Your task to perform on an android device: change the upload size in google photos Image 0: 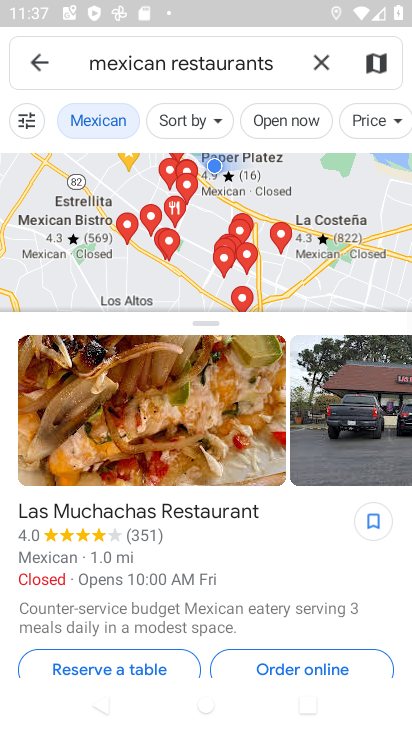
Step 0: press home button
Your task to perform on an android device: change the upload size in google photos Image 1: 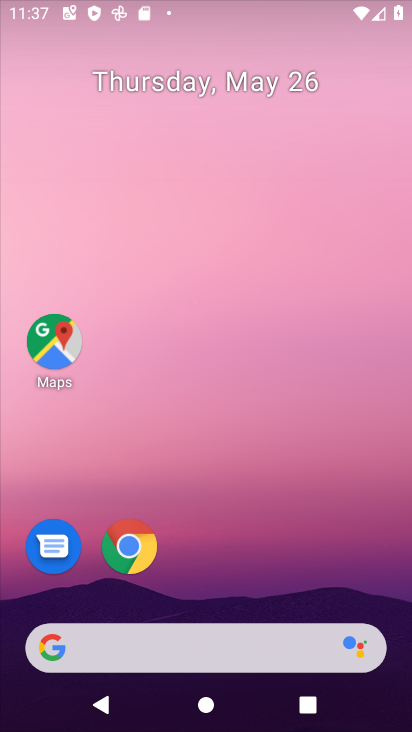
Step 1: drag from (221, 577) to (258, 118)
Your task to perform on an android device: change the upload size in google photos Image 2: 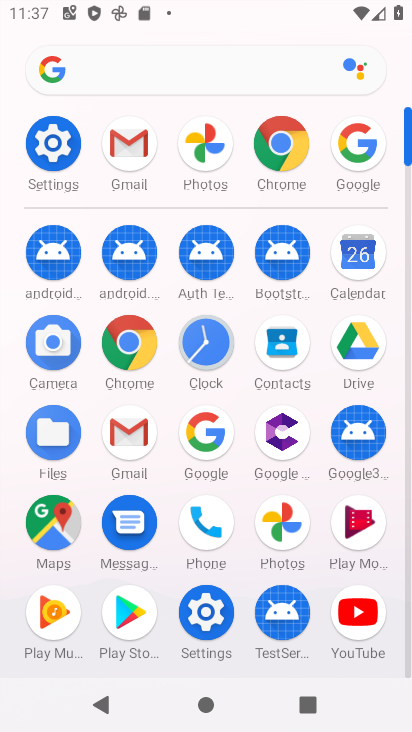
Step 2: click (205, 138)
Your task to perform on an android device: change the upload size in google photos Image 3: 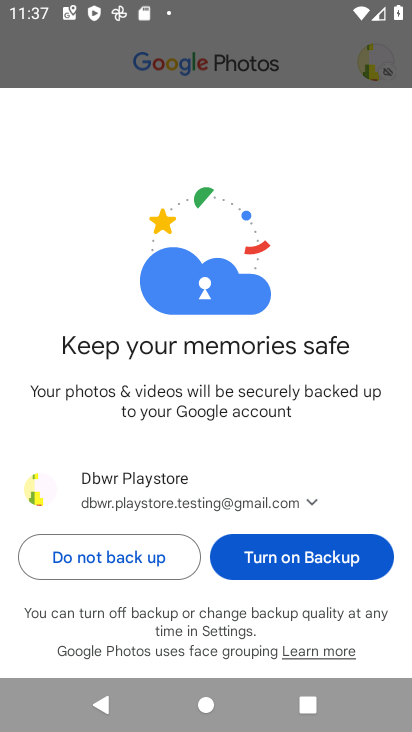
Step 3: click (305, 551)
Your task to perform on an android device: change the upload size in google photos Image 4: 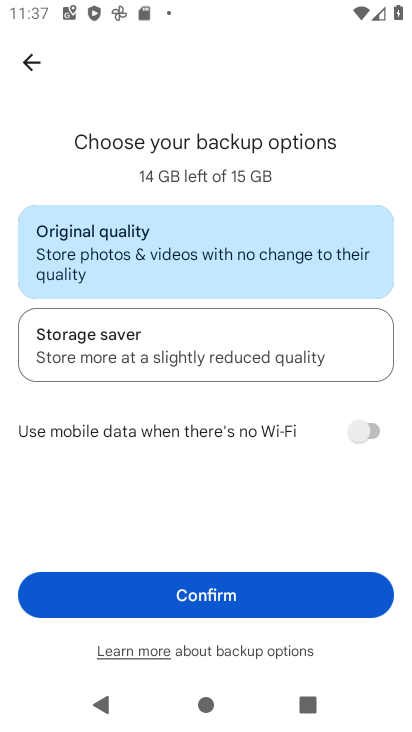
Step 4: click (115, 341)
Your task to perform on an android device: change the upload size in google photos Image 5: 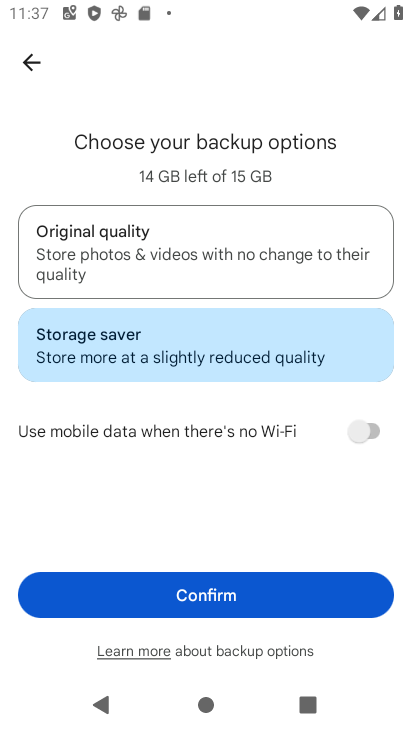
Step 5: click (176, 598)
Your task to perform on an android device: change the upload size in google photos Image 6: 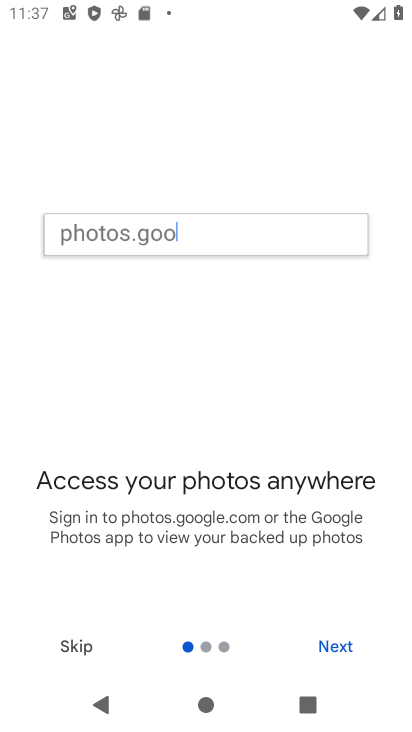
Step 6: click (337, 639)
Your task to perform on an android device: change the upload size in google photos Image 7: 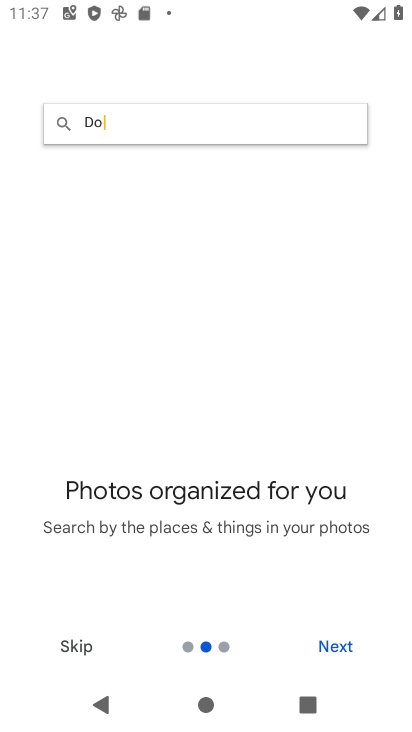
Step 7: click (337, 639)
Your task to perform on an android device: change the upload size in google photos Image 8: 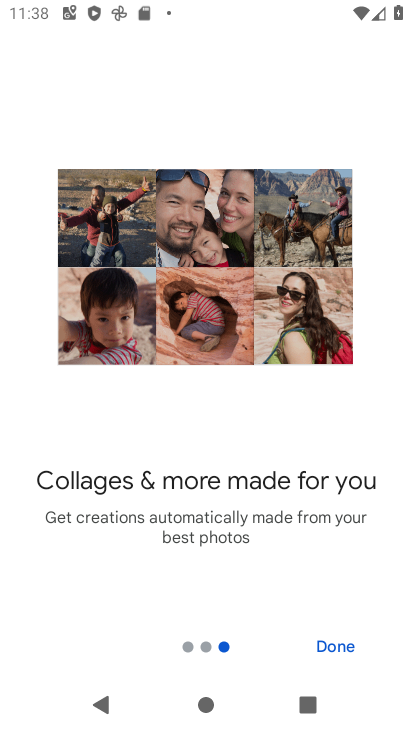
Step 8: click (337, 639)
Your task to perform on an android device: change the upload size in google photos Image 9: 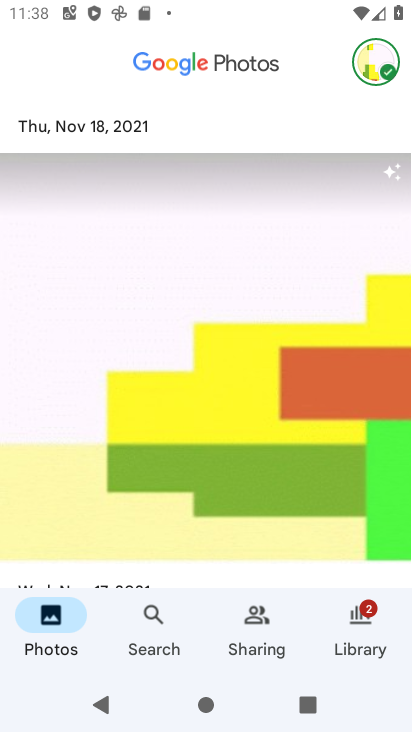
Step 9: task complete